Your task to perform on an android device: find snoozed emails in the gmail app Image 0: 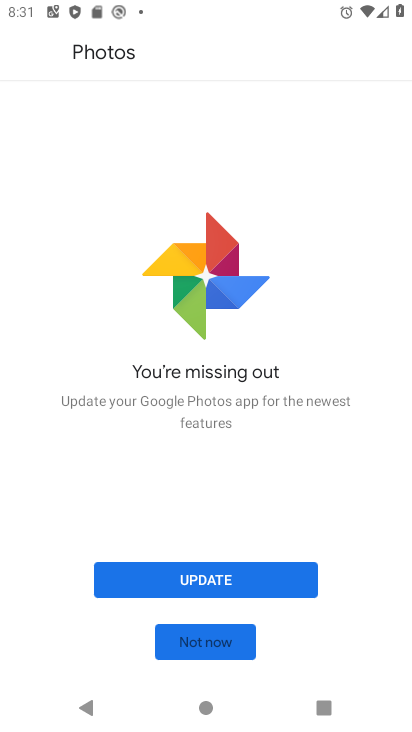
Step 0: press home button
Your task to perform on an android device: find snoozed emails in the gmail app Image 1: 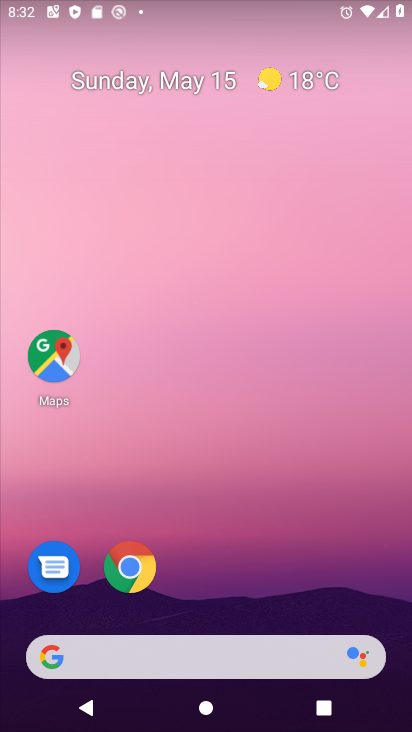
Step 1: drag from (165, 715) to (94, 216)
Your task to perform on an android device: find snoozed emails in the gmail app Image 2: 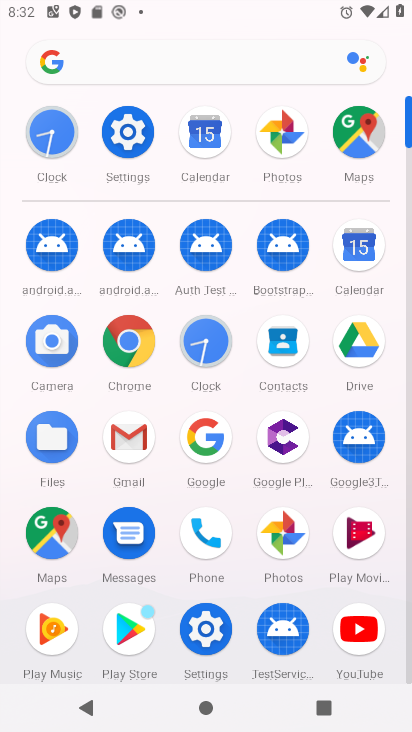
Step 2: click (123, 439)
Your task to perform on an android device: find snoozed emails in the gmail app Image 3: 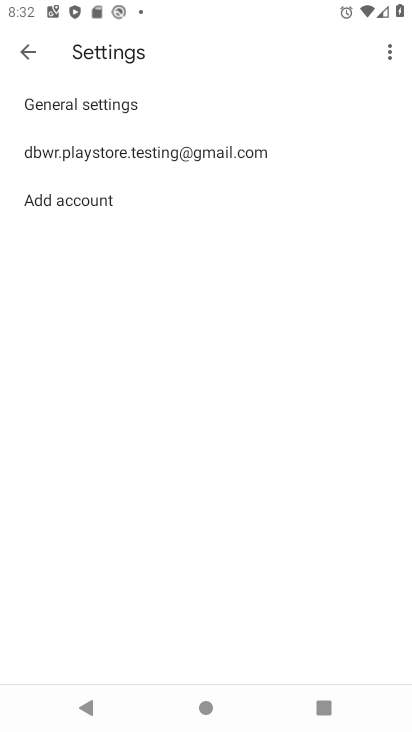
Step 3: click (35, 56)
Your task to perform on an android device: find snoozed emails in the gmail app Image 4: 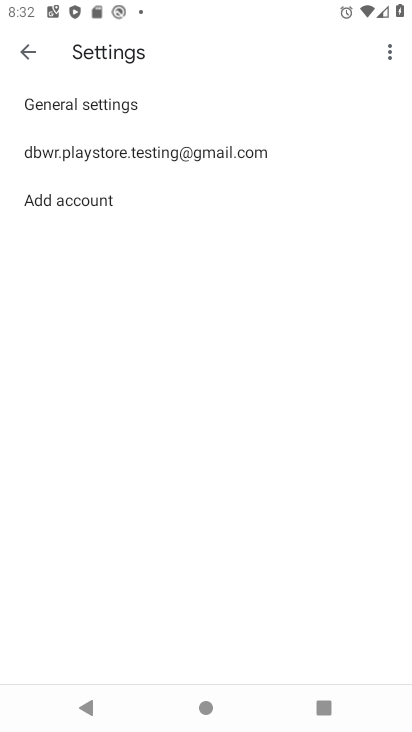
Step 4: click (15, 52)
Your task to perform on an android device: find snoozed emails in the gmail app Image 5: 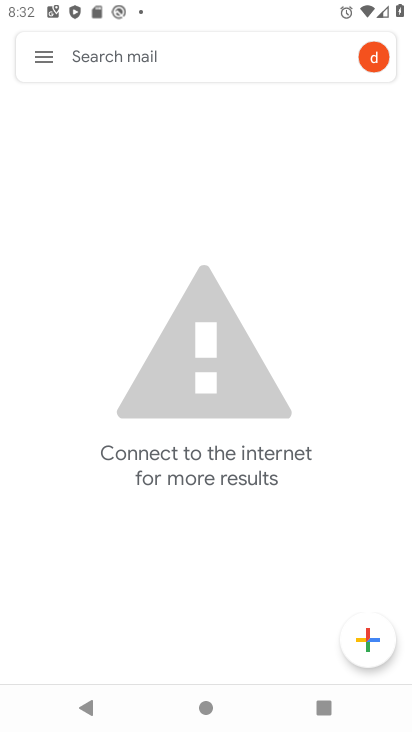
Step 5: click (51, 39)
Your task to perform on an android device: find snoozed emails in the gmail app Image 6: 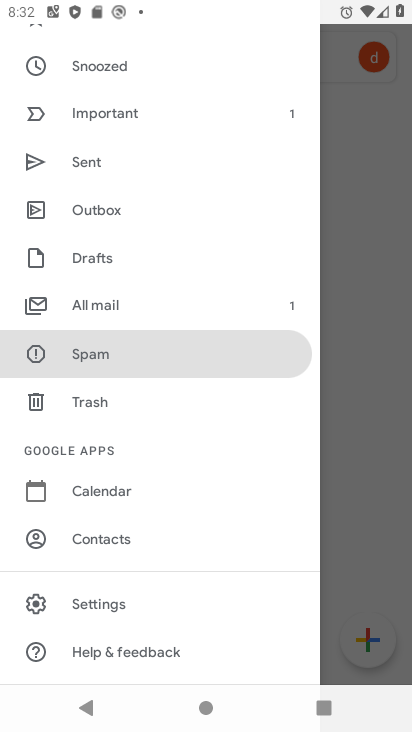
Step 6: click (149, 66)
Your task to perform on an android device: find snoozed emails in the gmail app Image 7: 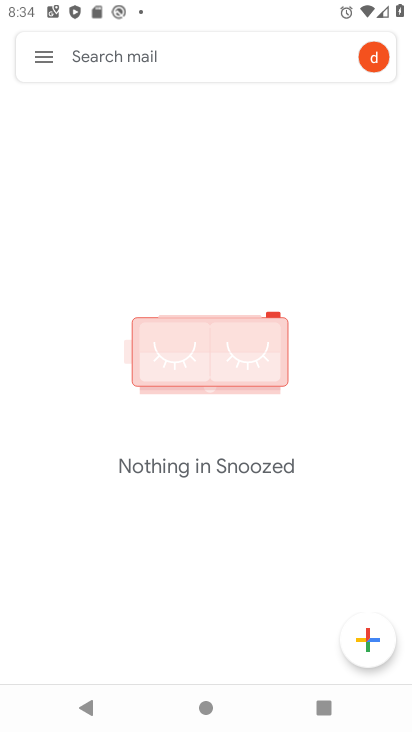
Step 7: task complete